Your task to perform on an android device: toggle sleep mode Image 0: 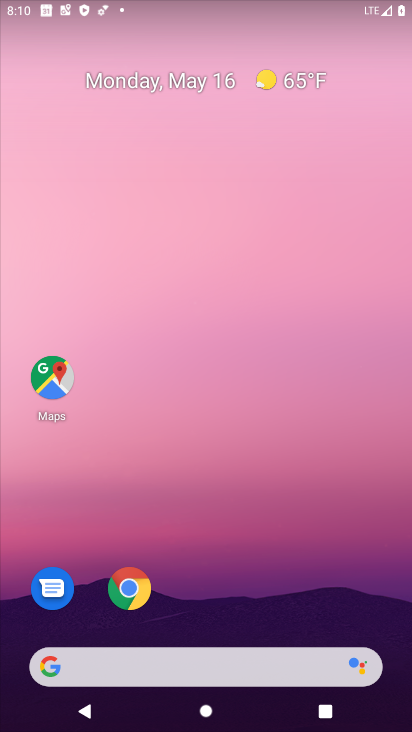
Step 0: drag from (215, 407) to (206, 32)
Your task to perform on an android device: toggle sleep mode Image 1: 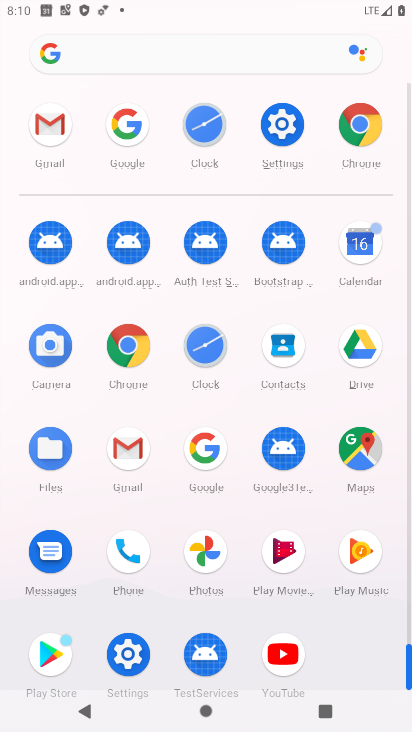
Step 1: drag from (12, 430) to (13, 239)
Your task to perform on an android device: toggle sleep mode Image 2: 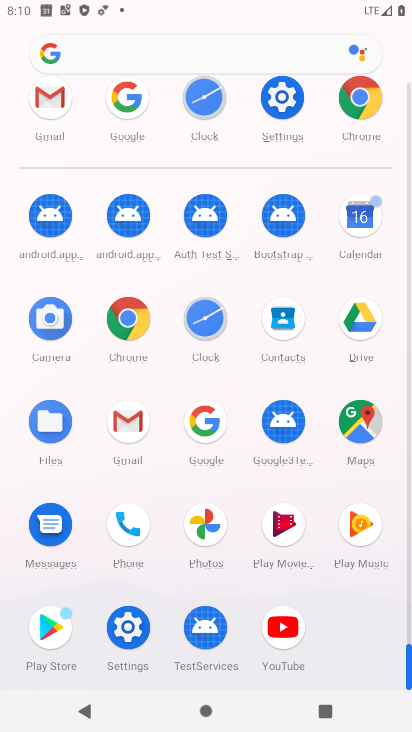
Step 2: click (124, 625)
Your task to perform on an android device: toggle sleep mode Image 3: 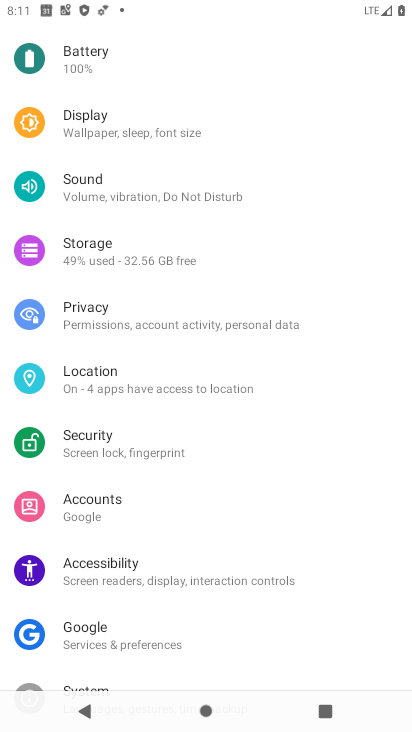
Step 3: drag from (240, 178) to (253, 509)
Your task to perform on an android device: toggle sleep mode Image 4: 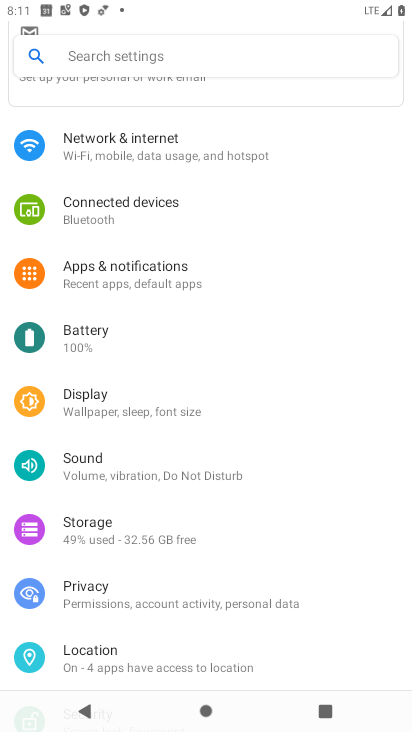
Step 4: click (104, 419)
Your task to perform on an android device: toggle sleep mode Image 5: 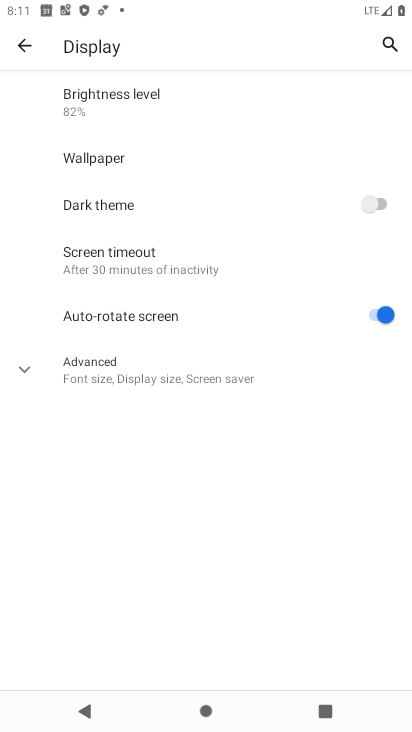
Step 5: click (44, 362)
Your task to perform on an android device: toggle sleep mode Image 6: 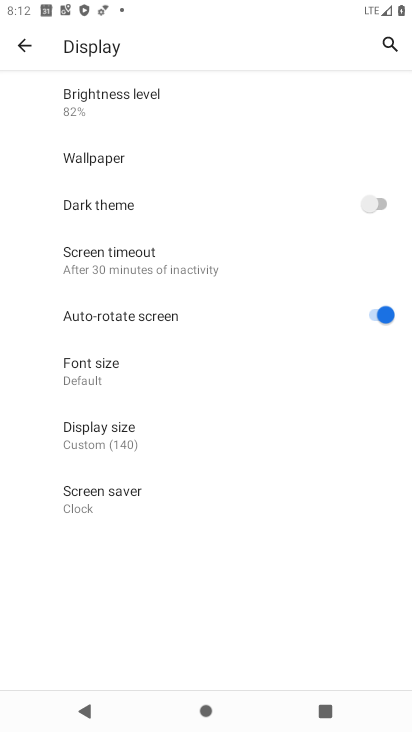
Step 6: task complete